Your task to perform on an android device: Open Google Maps and go to "Timeline" Image 0: 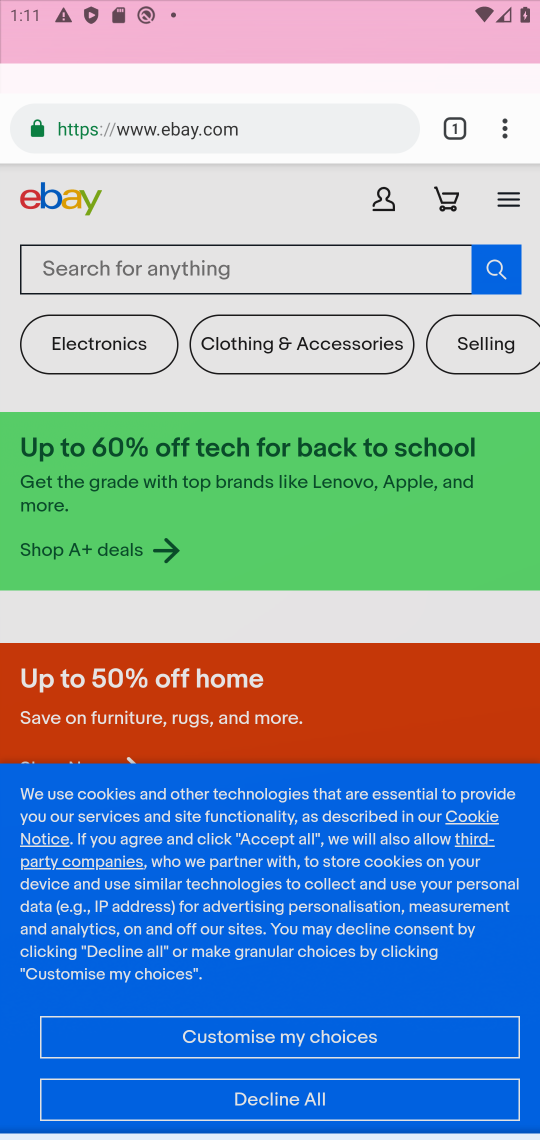
Step 0: press home button
Your task to perform on an android device: Open Google Maps and go to "Timeline" Image 1: 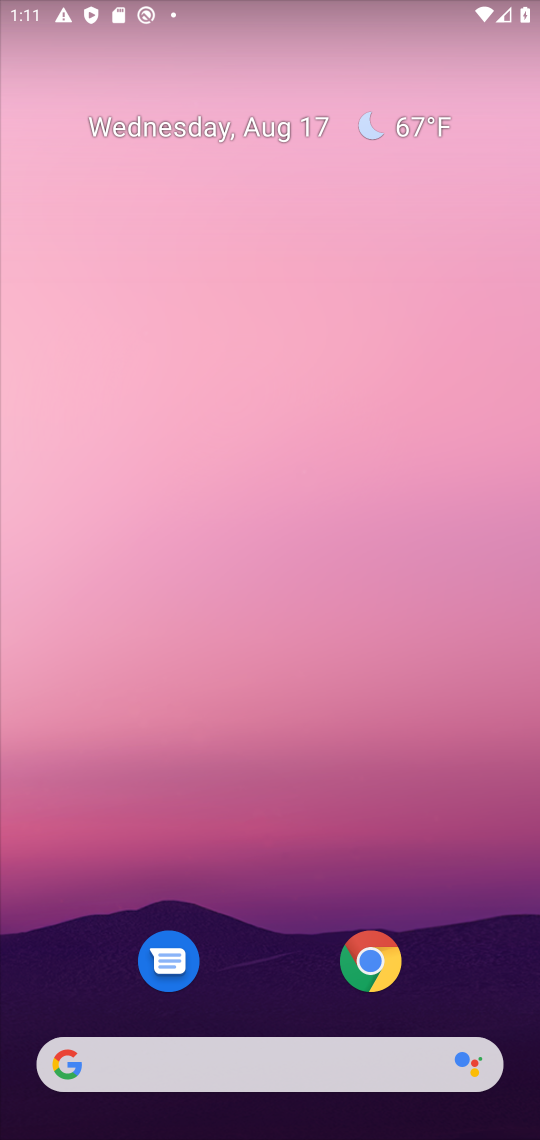
Step 1: drag from (332, 941) to (485, 32)
Your task to perform on an android device: Open Google Maps and go to "Timeline" Image 2: 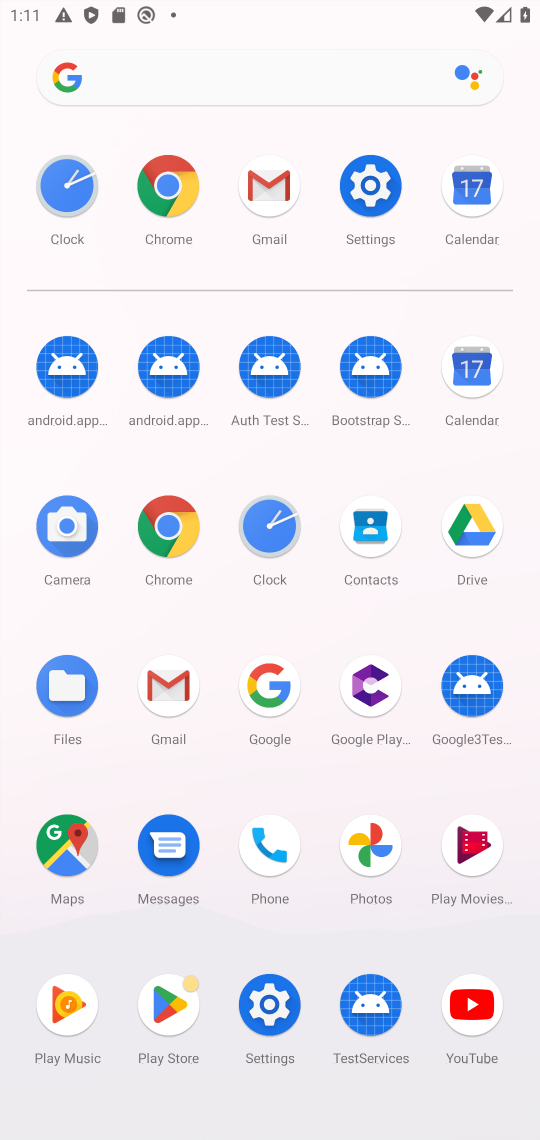
Step 2: click (70, 881)
Your task to perform on an android device: Open Google Maps and go to "Timeline" Image 3: 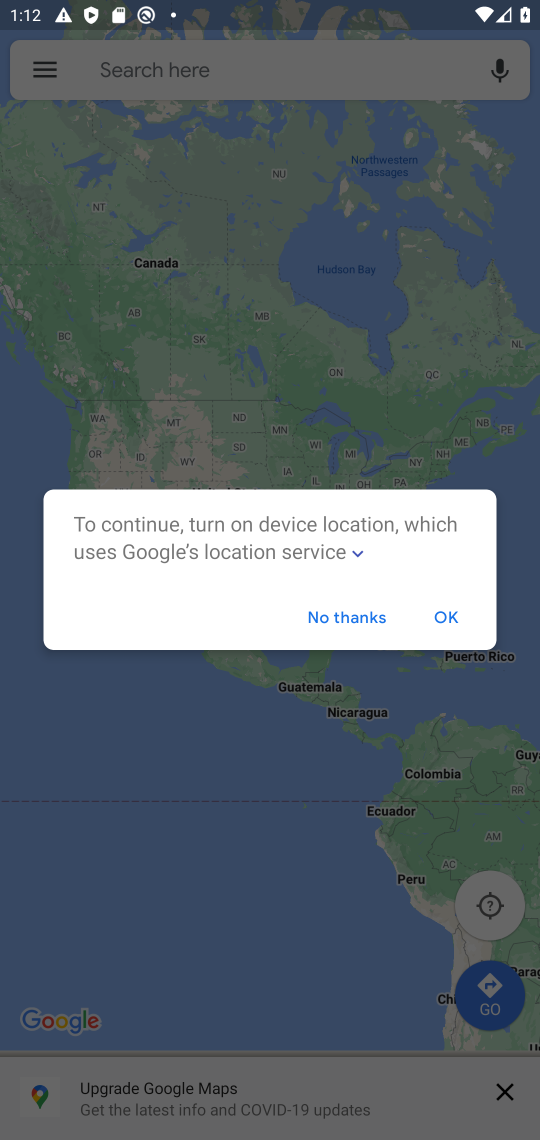
Step 3: click (452, 617)
Your task to perform on an android device: Open Google Maps and go to "Timeline" Image 4: 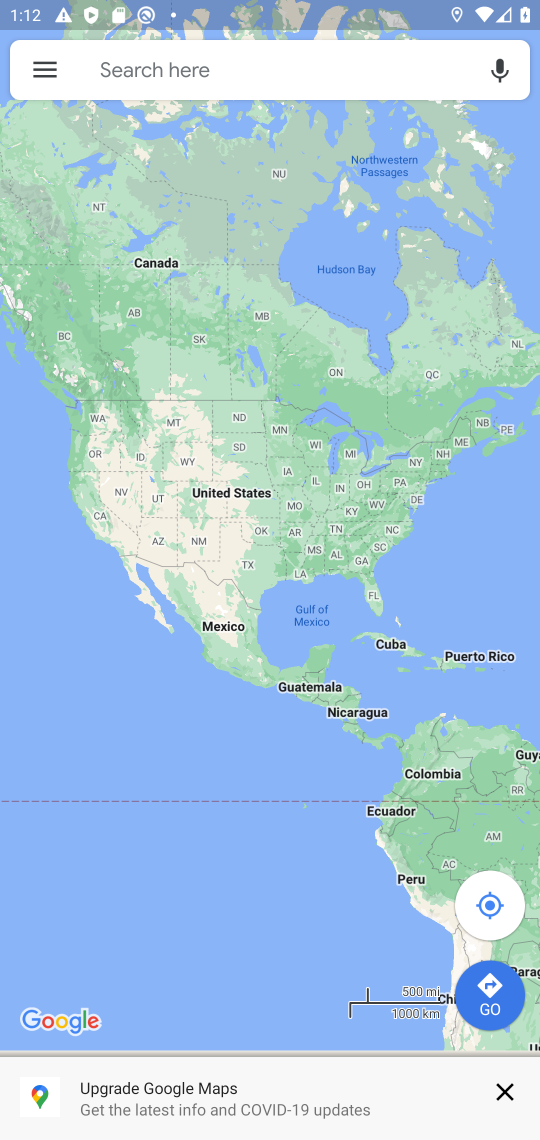
Step 4: click (27, 72)
Your task to perform on an android device: Open Google Maps and go to "Timeline" Image 5: 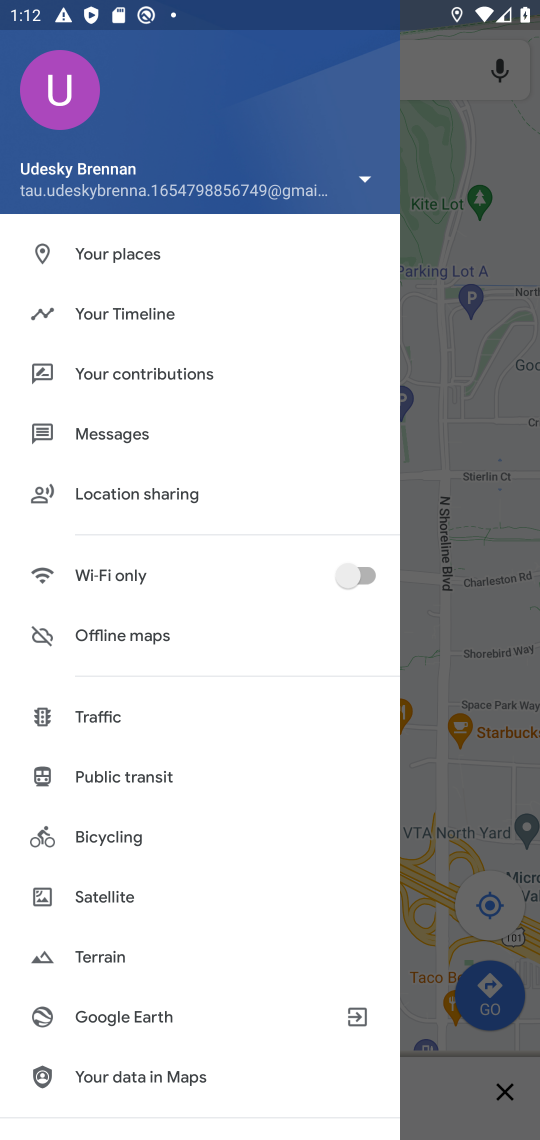
Step 5: click (93, 312)
Your task to perform on an android device: Open Google Maps and go to "Timeline" Image 6: 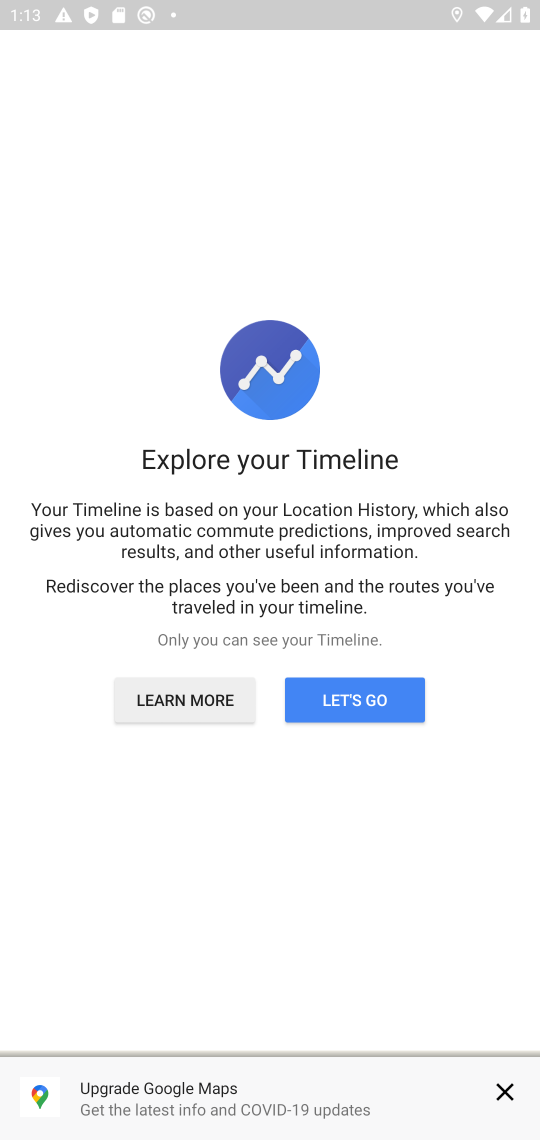
Step 6: click (330, 697)
Your task to perform on an android device: Open Google Maps and go to "Timeline" Image 7: 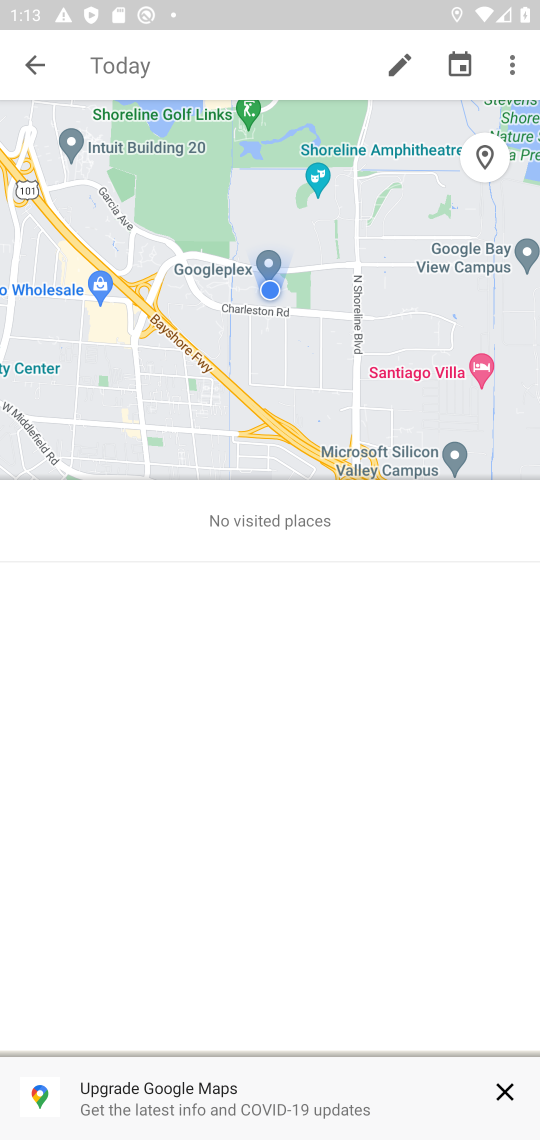
Step 7: task complete